Your task to perform on an android device: toggle javascript in the chrome app Image 0: 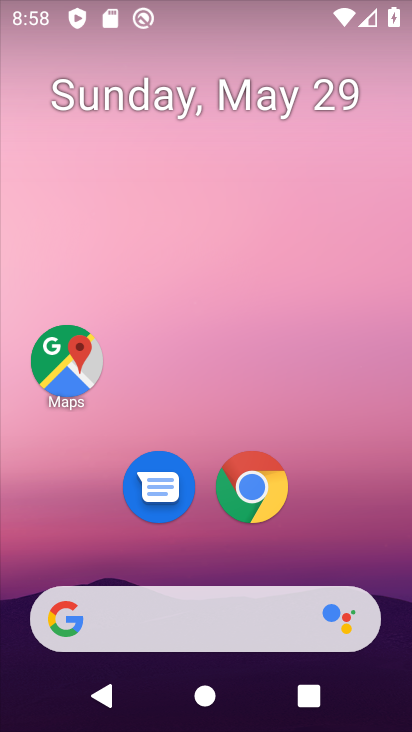
Step 0: click (260, 500)
Your task to perform on an android device: toggle javascript in the chrome app Image 1: 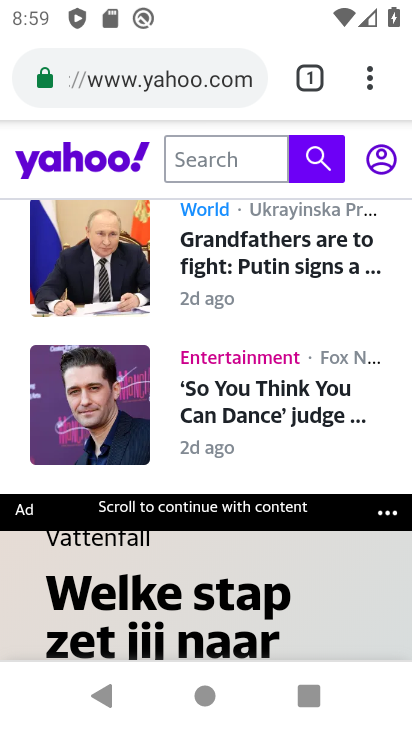
Step 1: click (369, 84)
Your task to perform on an android device: toggle javascript in the chrome app Image 2: 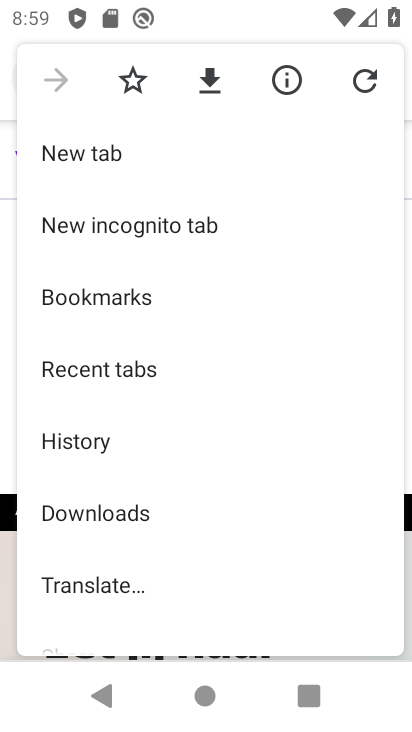
Step 2: drag from (135, 617) to (192, 167)
Your task to perform on an android device: toggle javascript in the chrome app Image 3: 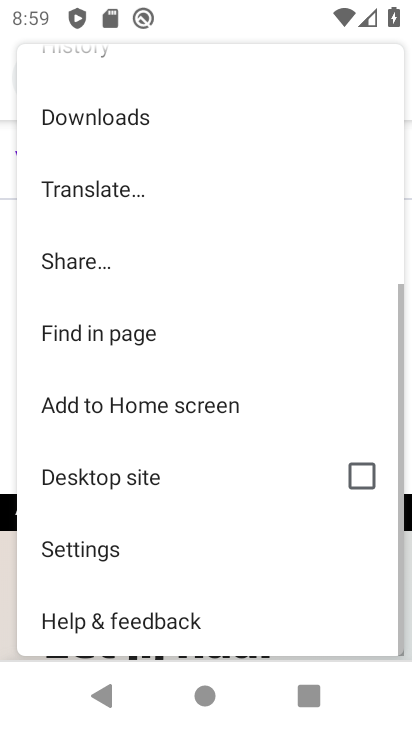
Step 3: click (82, 556)
Your task to perform on an android device: toggle javascript in the chrome app Image 4: 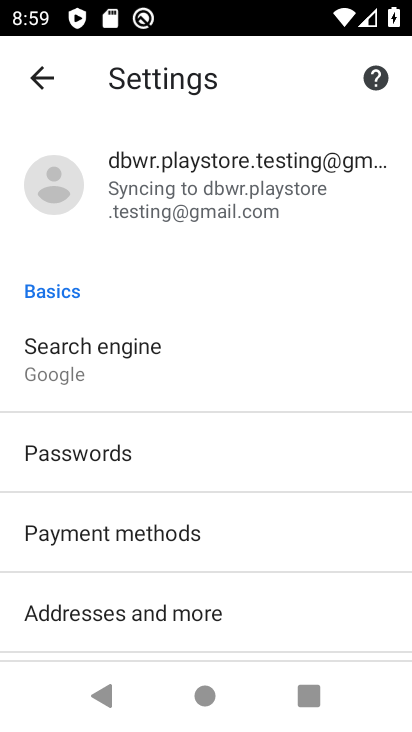
Step 4: drag from (329, 614) to (367, 272)
Your task to perform on an android device: toggle javascript in the chrome app Image 5: 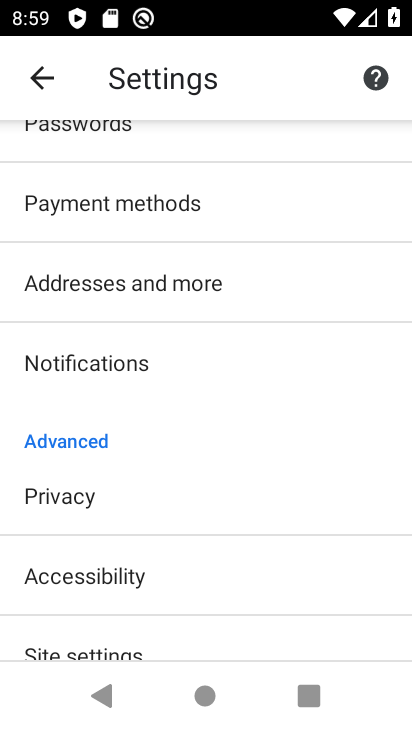
Step 5: drag from (303, 538) to (374, 262)
Your task to perform on an android device: toggle javascript in the chrome app Image 6: 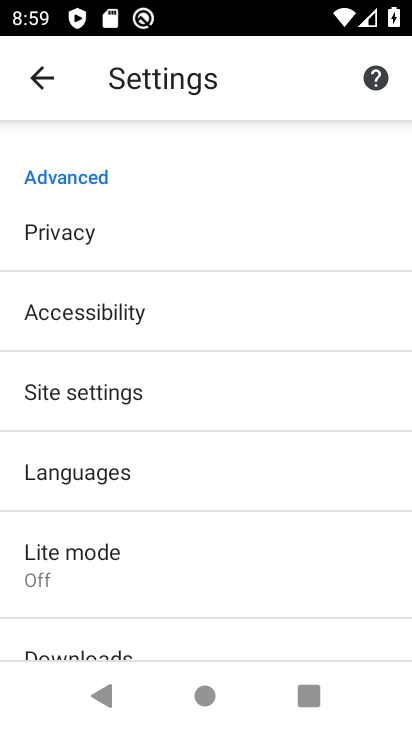
Step 6: click (100, 407)
Your task to perform on an android device: toggle javascript in the chrome app Image 7: 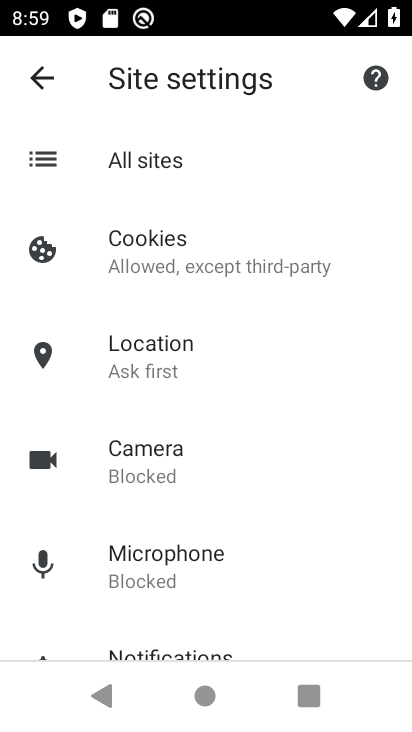
Step 7: drag from (265, 558) to (272, 290)
Your task to perform on an android device: toggle javascript in the chrome app Image 8: 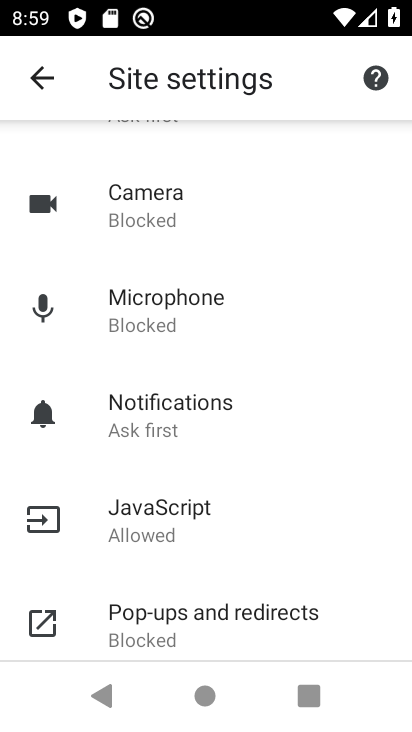
Step 8: click (176, 527)
Your task to perform on an android device: toggle javascript in the chrome app Image 9: 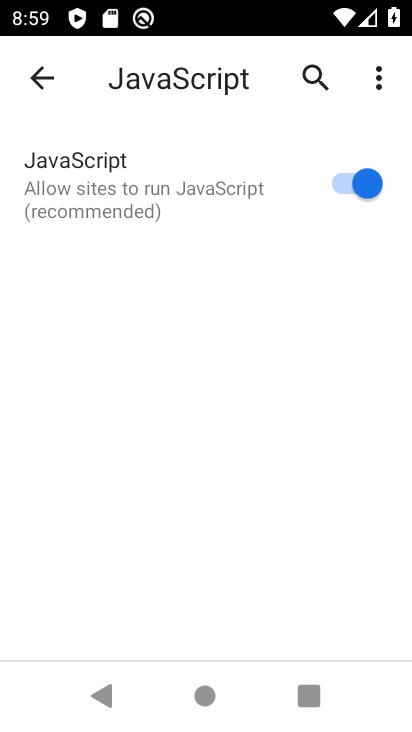
Step 9: click (363, 187)
Your task to perform on an android device: toggle javascript in the chrome app Image 10: 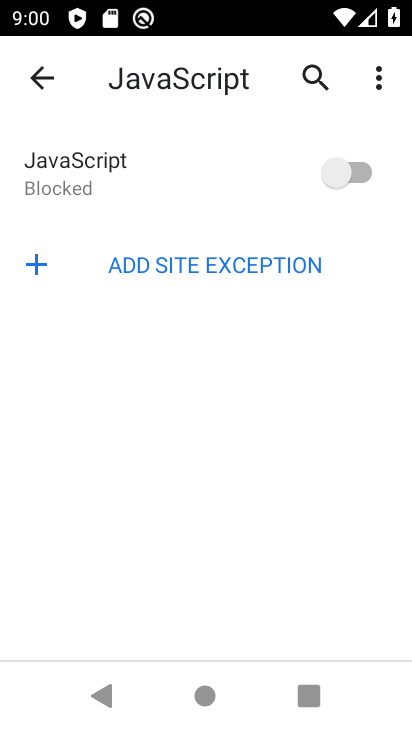
Step 10: task complete